Your task to perform on an android device: check battery use Image 0: 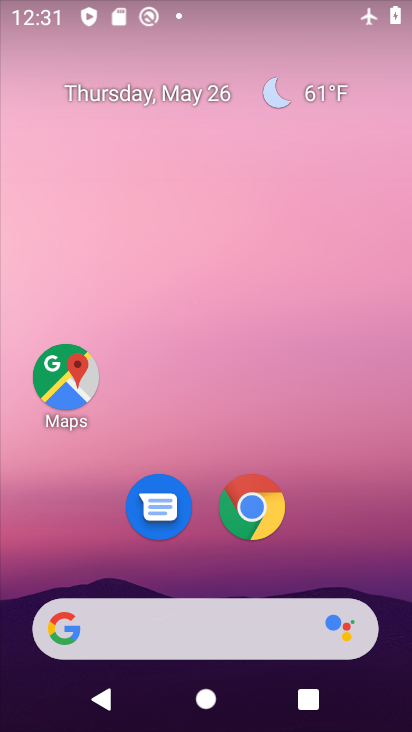
Step 0: drag from (359, 590) to (334, 157)
Your task to perform on an android device: check battery use Image 1: 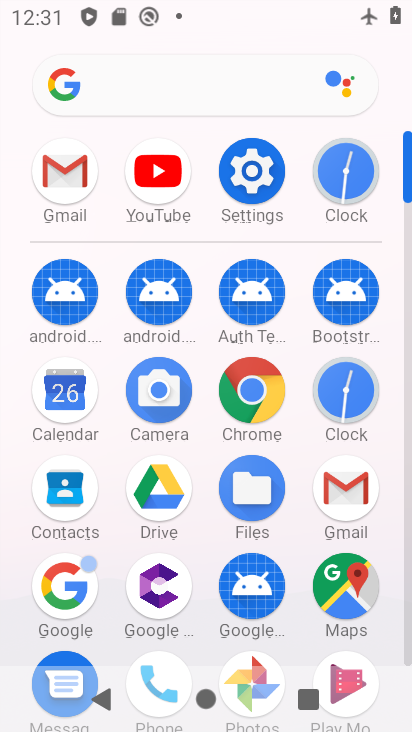
Step 1: click (252, 209)
Your task to perform on an android device: check battery use Image 2: 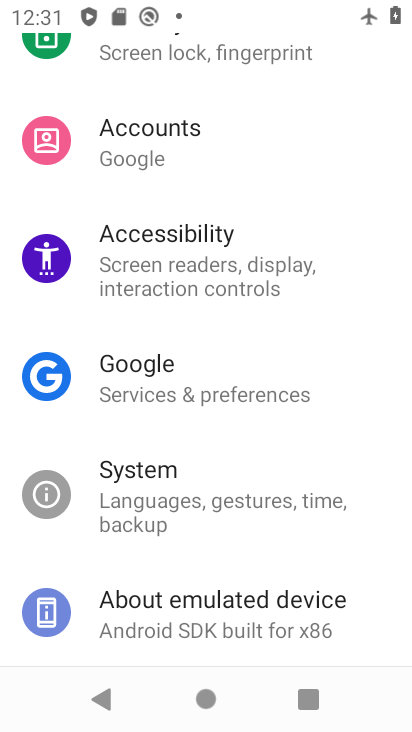
Step 2: drag from (237, 214) to (209, 488)
Your task to perform on an android device: check battery use Image 3: 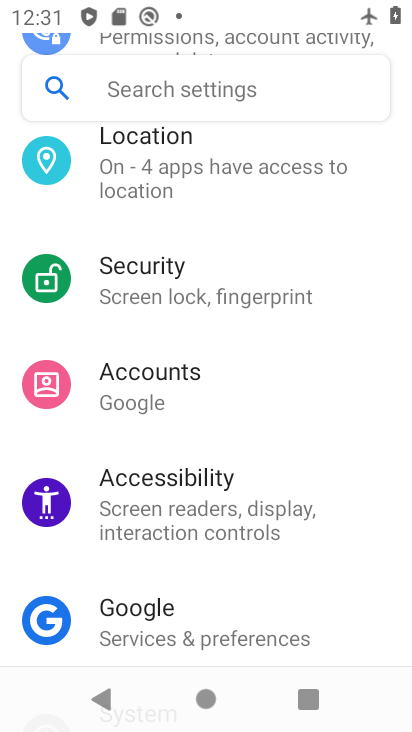
Step 3: drag from (197, 212) to (196, 455)
Your task to perform on an android device: check battery use Image 4: 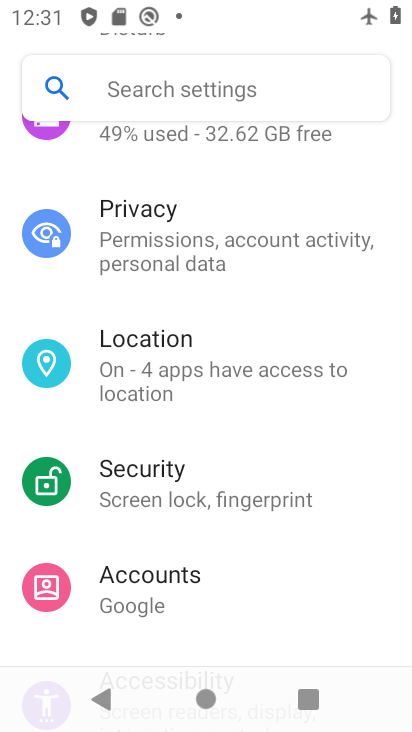
Step 4: drag from (196, 208) to (195, 484)
Your task to perform on an android device: check battery use Image 5: 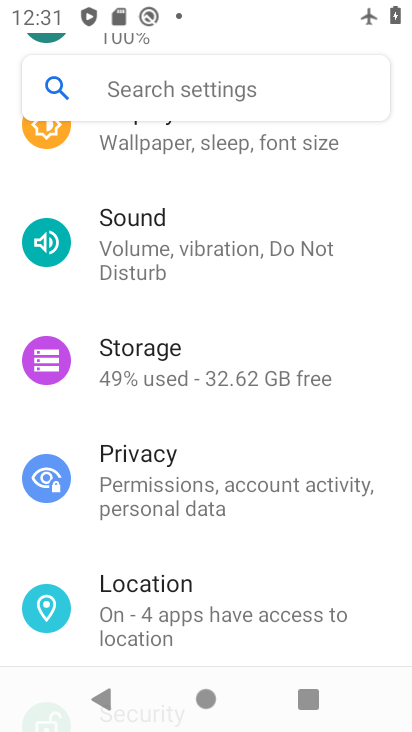
Step 5: drag from (182, 214) to (174, 452)
Your task to perform on an android device: check battery use Image 6: 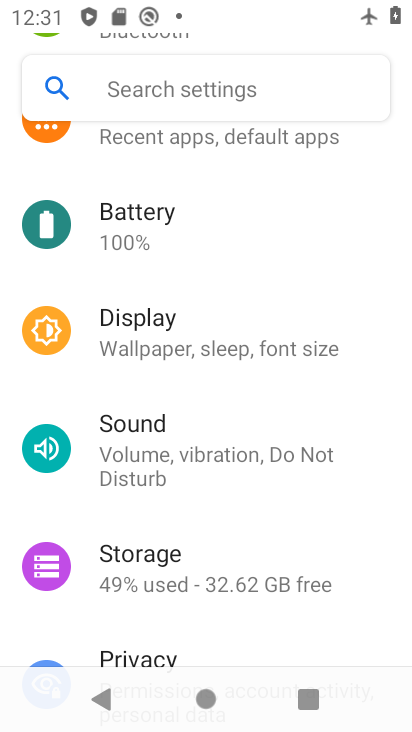
Step 6: click (174, 245)
Your task to perform on an android device: check battery use Image 7: 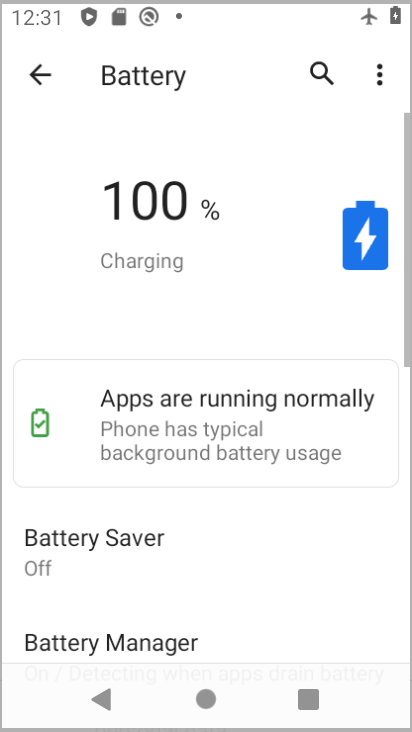
Step 7: task complete